Your task to perform on an android device: Open Youtube and go to the subscriptions tab Image 0: 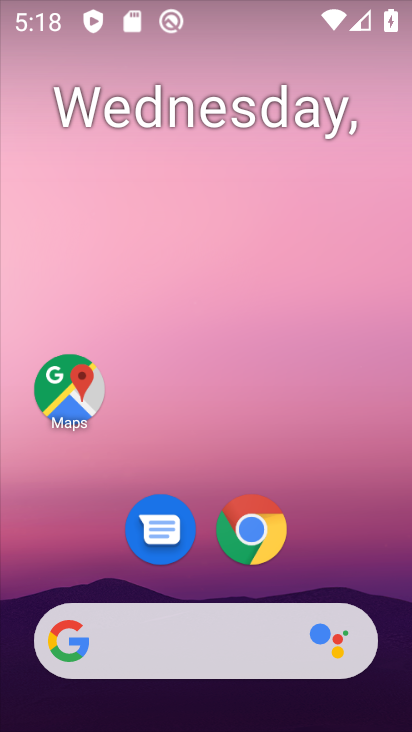
Step 0: click (172, 30)
Your task to perform on an android device: Open Youtube and go to the subscriptions tab Image 1: 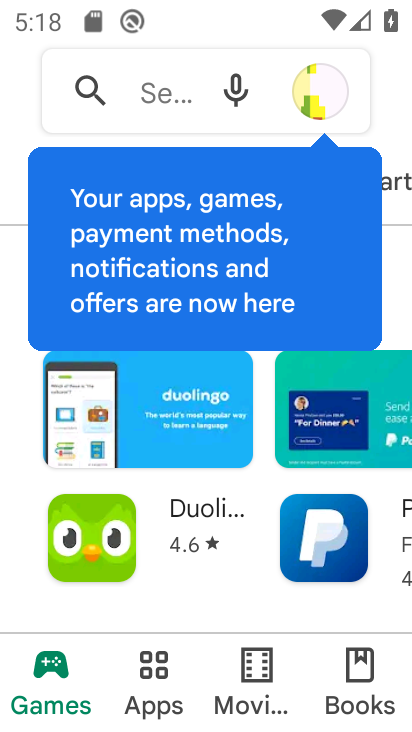
Step 1: press back button
Your task to perform on an android device: Open Youtube and go to the subscriptions tab Image 2: 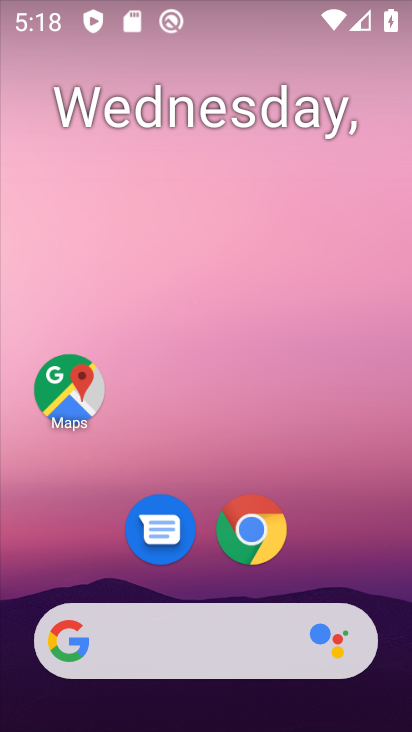
Step 2: drag from (287, 447) to (233, 31)
Your task to perform on an android device: Open Youtube and go to the subscriptions tab Image 3: 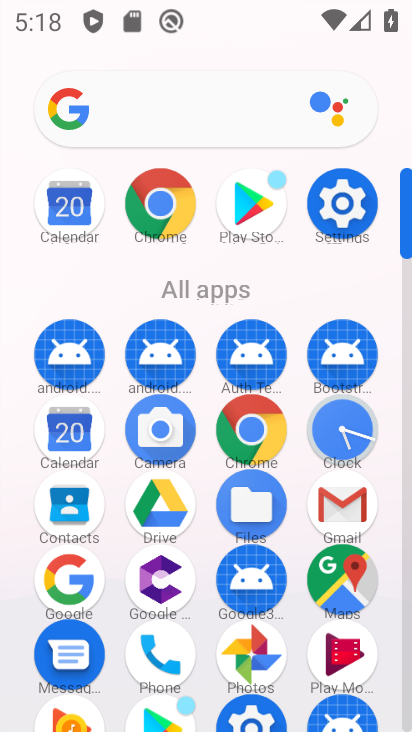
Step 3: drag from (4, 630) to (13, 327)
Your task to perform on an android device: Open Youtube and go to the subscriptions tab Image 4: 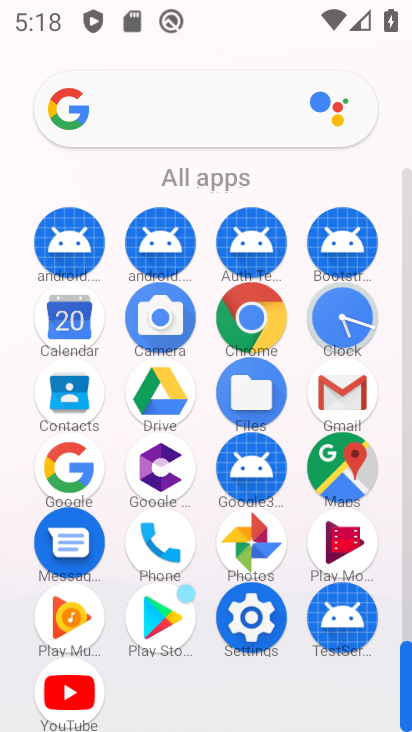
Step 4: click (65, 692)
Your task to perform on an android device: Open Youtube and go to the subscriptions tab Image 5: 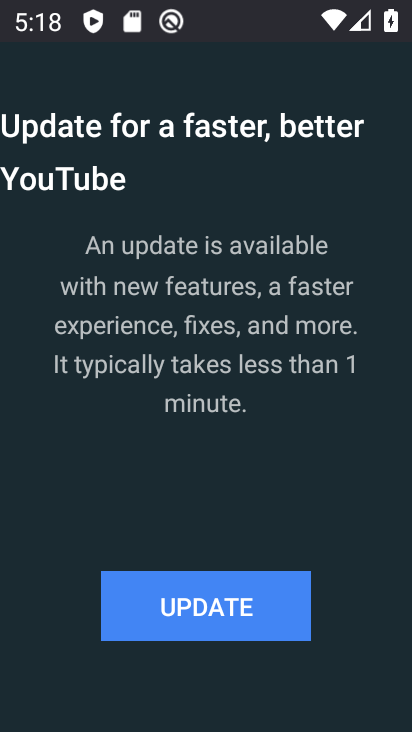
Step 5: click (220, 613)
Your task to perform on an android device: Open Youtube and go to the subscriptions tab Image 6: 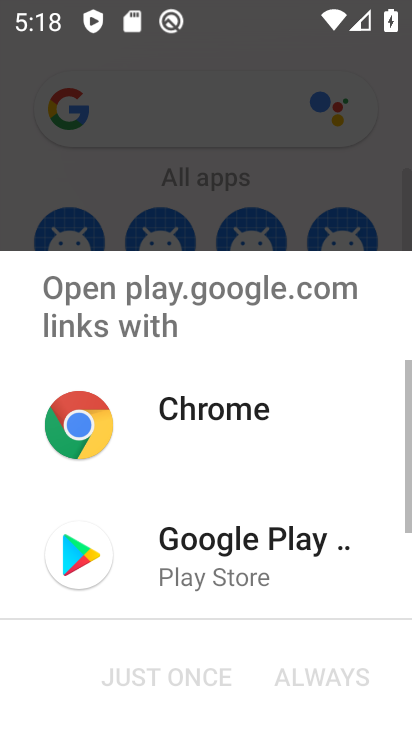
Step 6: click (220, 581)
Your task to perform on an android device: Open Youtube and go to the subscriptions tab Image 7: 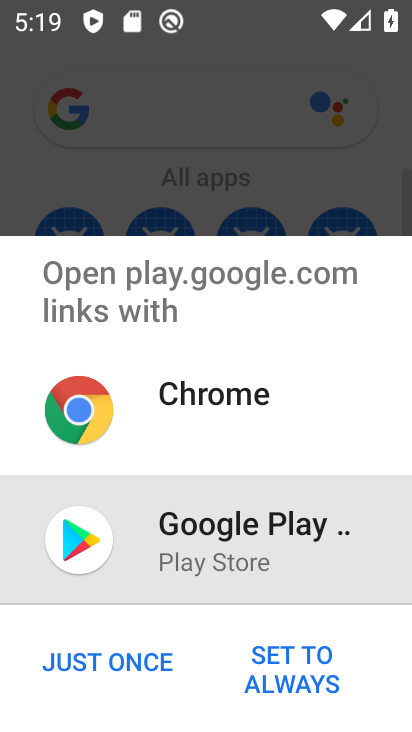
Step 7: click (101, 664)
Your task to perform on an android device: Open Youtube and go to the subscriptions tab Image 8: 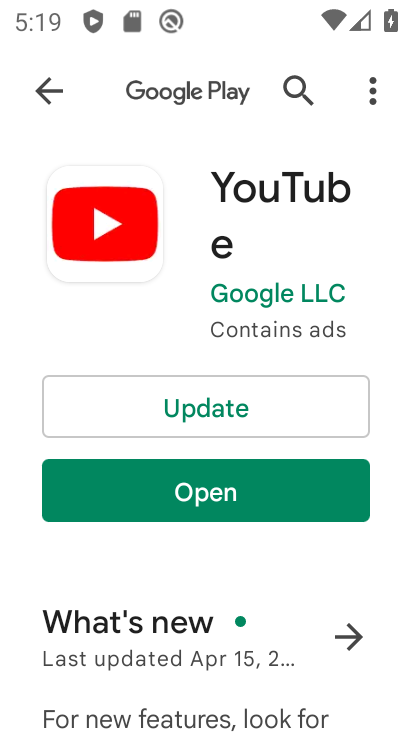
Step 8: click (188, 482)
Your task to perform on an android device: Open Youtube and go to the subscriptions tab Image 9: 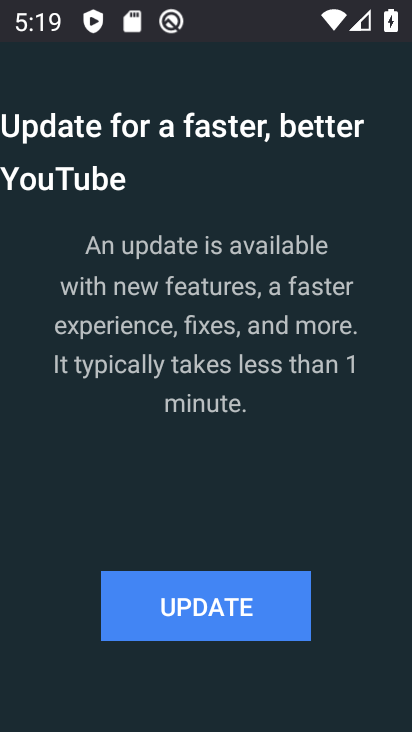
Step 9: click (226, 612)
Your task to perform on an android device: Open Youtube and go to the subscriptions tab Image 10: 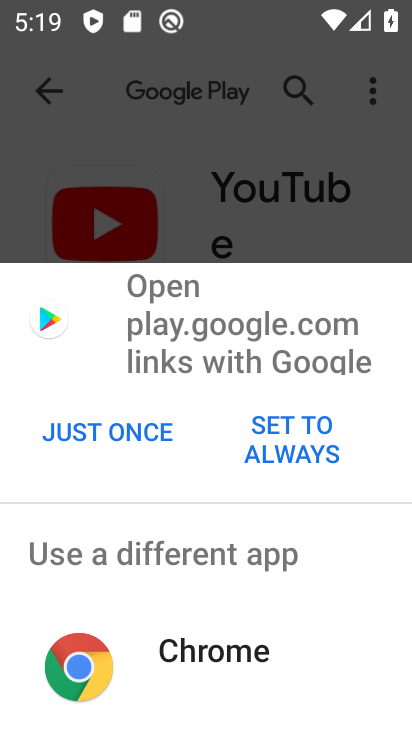
Step 10: click (113, 433)
Your task to perform on an android device: Open Youtube and go to the subscriptions tab Image 11: 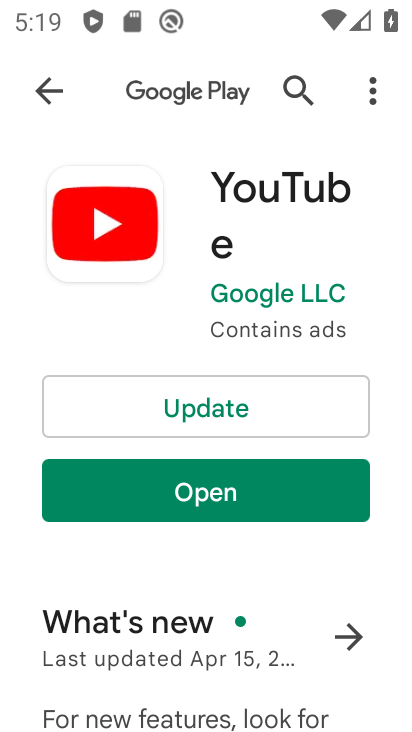
Step 11: click (133, 417)
Your task to perform on an android device: Open Youtube and go to the subscriptions tab Image 12: 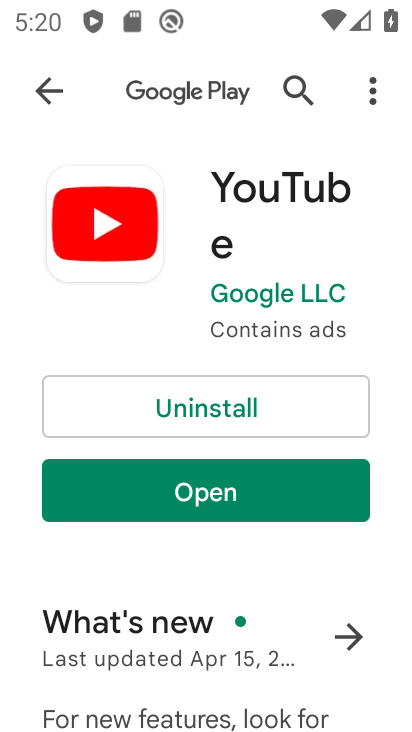
Step 12: click (243, 504)
Your task to perform on an android device: Open Youtube and go to the subscriptions tab Image 13: 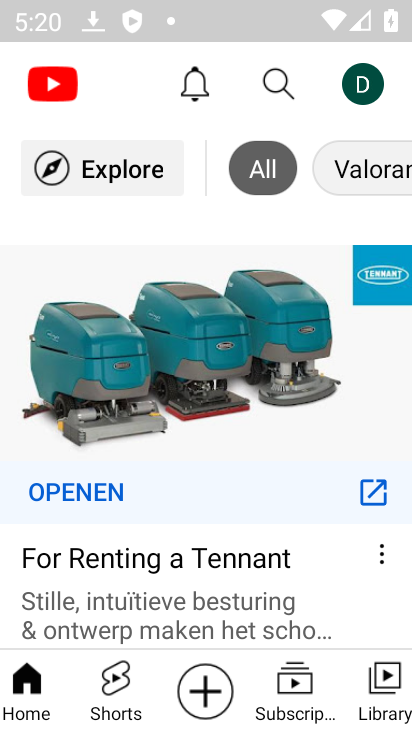
Step 13: click (291, 686)
Your task to perform on an android device: Open Youtube and go to the subscriptions tab Image 14: 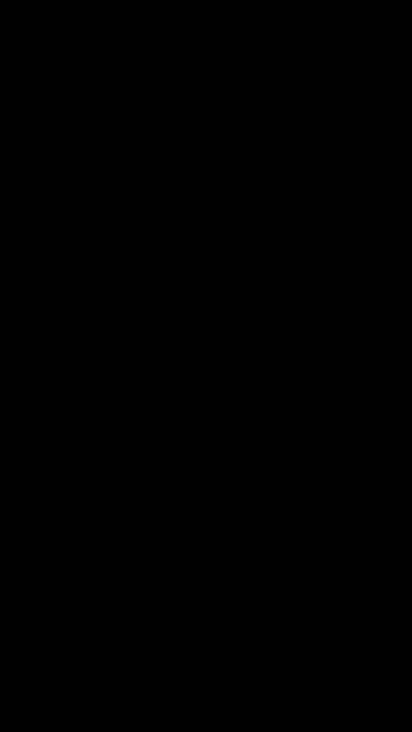
Step 14: task complete